Your task to perform on an android device: turn off javascript in the chrome app Image 0: 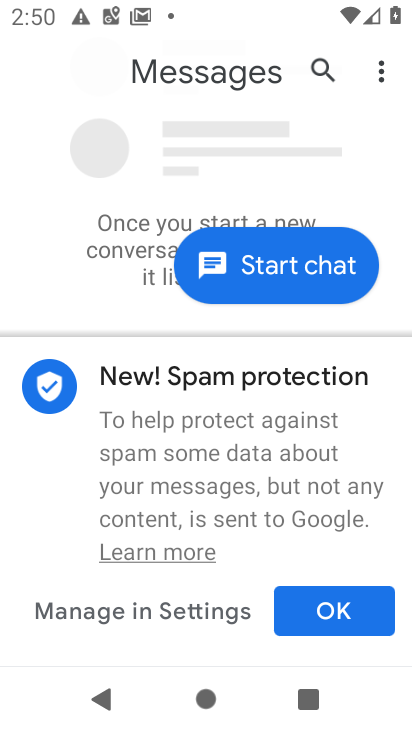
Step 0: press home button
Your task to perform on an android device: turn off javascript in the chrome app Image 1: 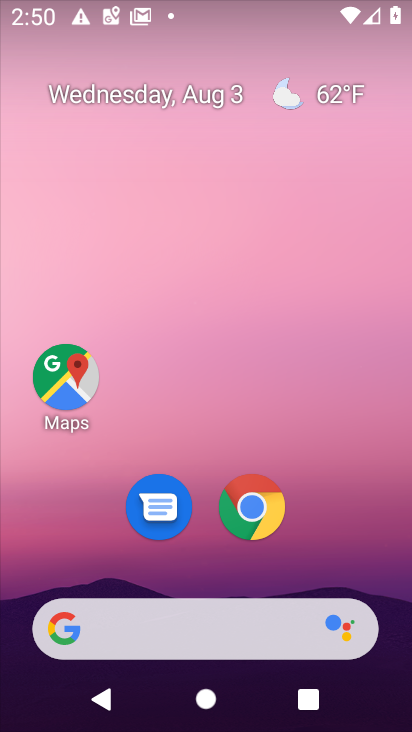
Step 1: drag from (337, 569) to (208, 94)
Your task to perform on an android device: turn off javascript in the chrome app Image 2: 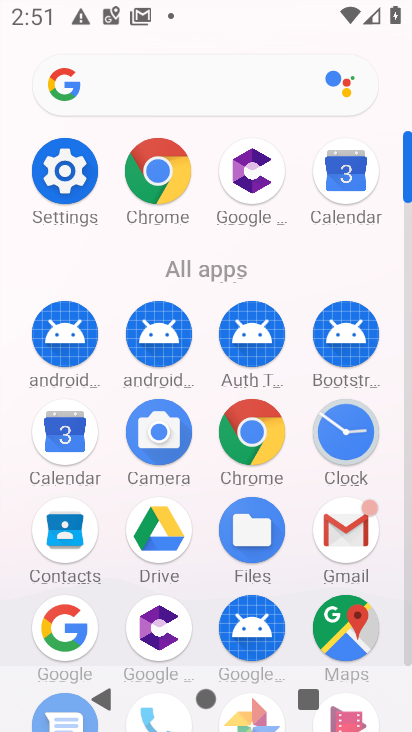
Step 2: click (250, 429)
Your task to perform on an android device: turn off javascript in the chrome app Image 3: 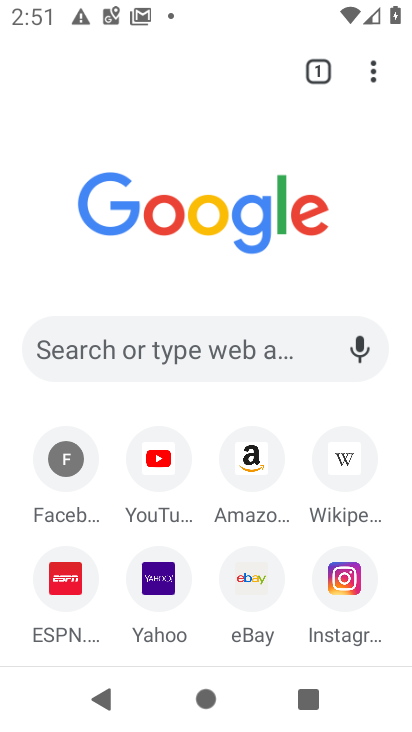
Step 3: click (373, 71)
Your task to perform on an android device: turn off javascript in the chrome app Image 4: 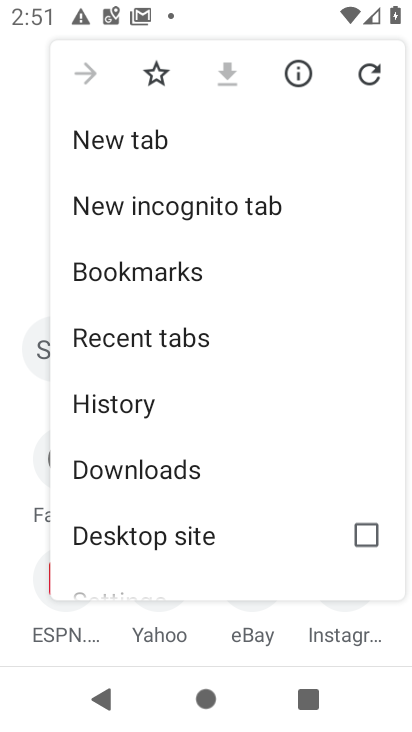
Step 4: drag from (174, 540) to (174, 228)
Your task to perform on an android device: turn off javascript in the chrome app Image 5: 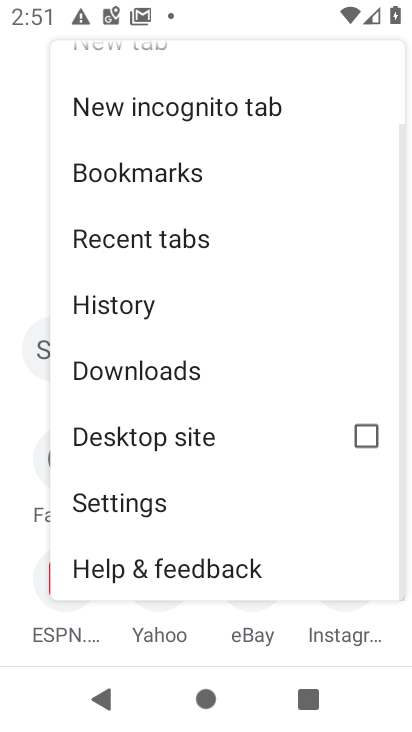
Step 5: click (115, 506)
Your task to perform on an android device: turn off javascript in the chrome app Image 6: 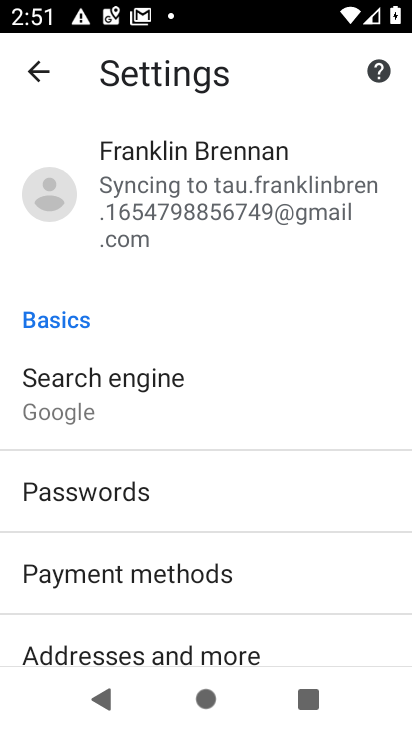
Step 6: drag from (326, 632) to (254, 148)
Your task to perform on an android device: turn off javascript in the chrome app Image 7: 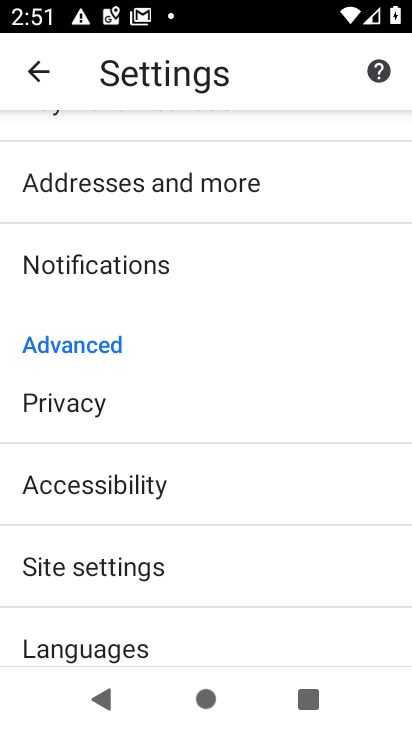
Step 7: click (119, 558)
Your task to perform on an android device: turn off javascript in the chrome app Image 8: 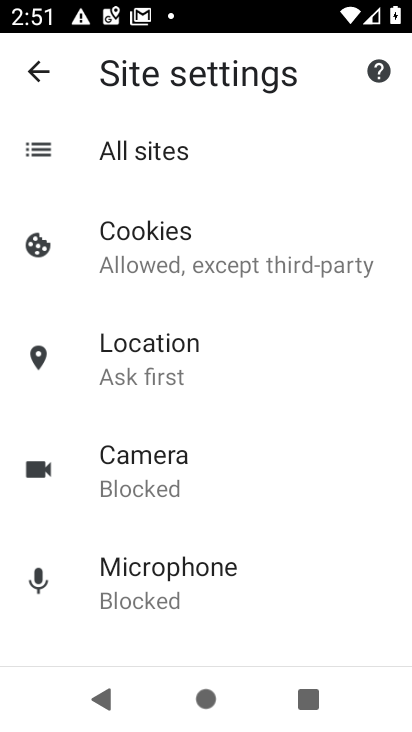
Step 8: drag from (242, 594) to (234, 227)
Your task to perform on an android device: turn off javascript in the chrome app Image 9: 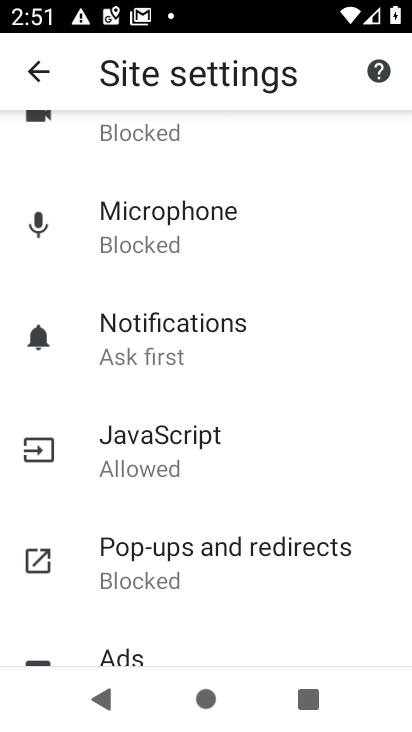
Step 9: click (168, 461)
Your task to perform on an android device: turn off javascript in the chrome app Image 10: 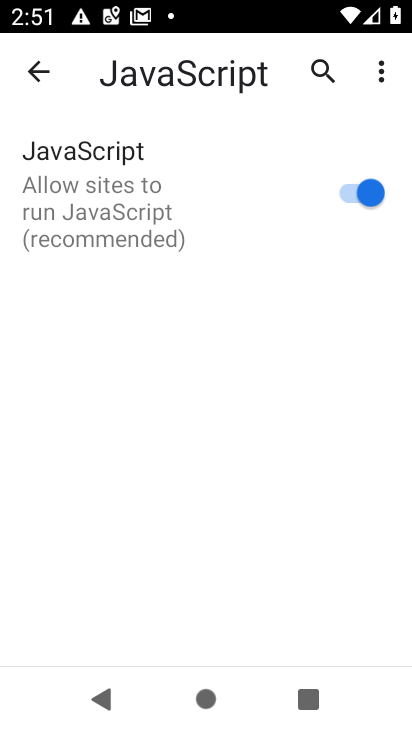
Step 10: click (370, 182)
Your task to perform on an android device: turn off javascript in the chrome app Image 11: 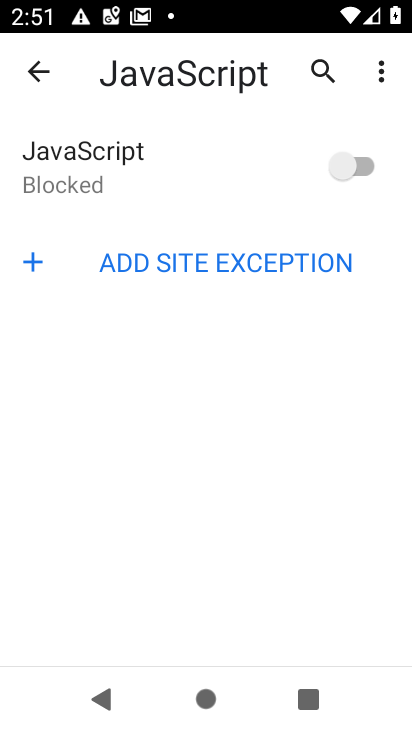
Step 11: task complete